Your task to perform on an android device: Go to wifi settings Image 0: 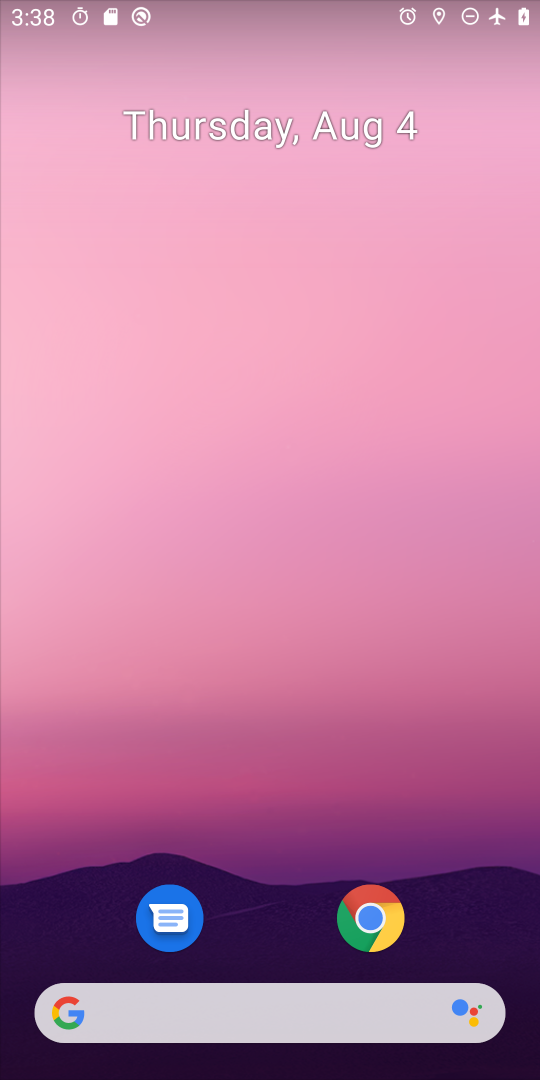
Step 0: drag from (301, 957) to (250, 366)
Your task to perform on an android device: Go to wifi settings Image 1: 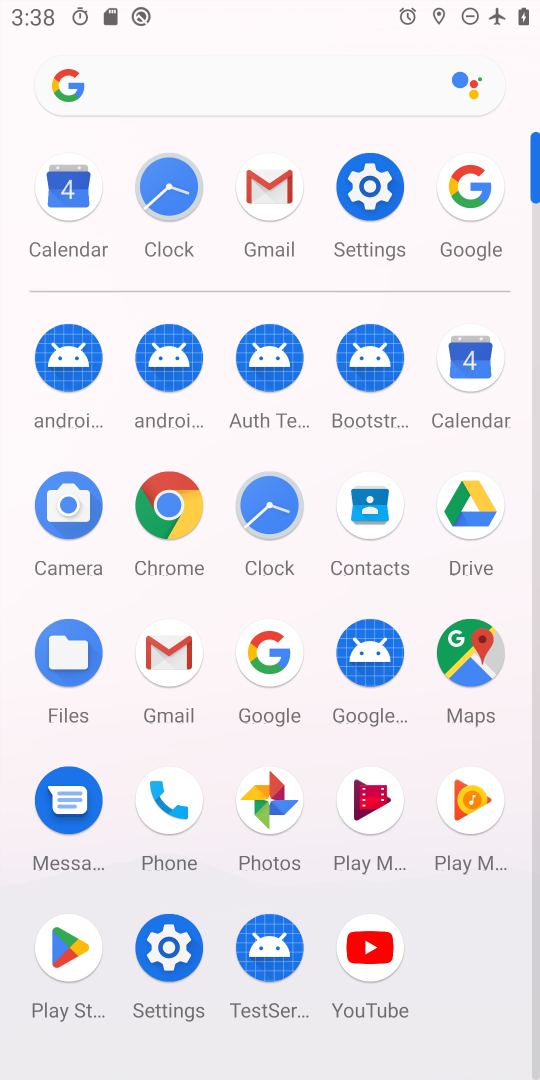
Step 1: click (378, 199)
Your task to perform on an android device: Go to wifi settings Image 2: 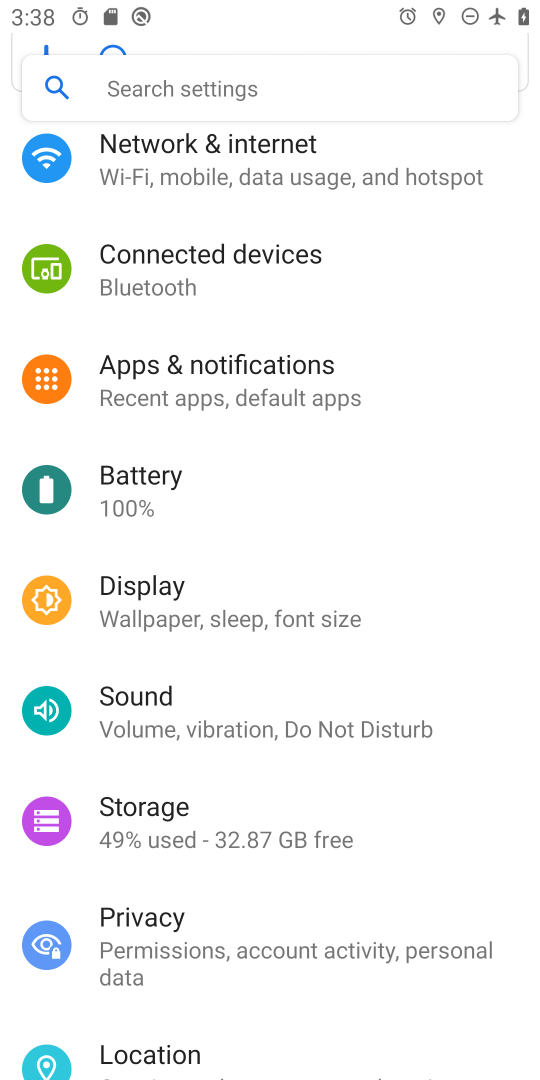
Step 2: click (324, 161)
Your task to perform on an android device: Go to wifi settings Image 3: 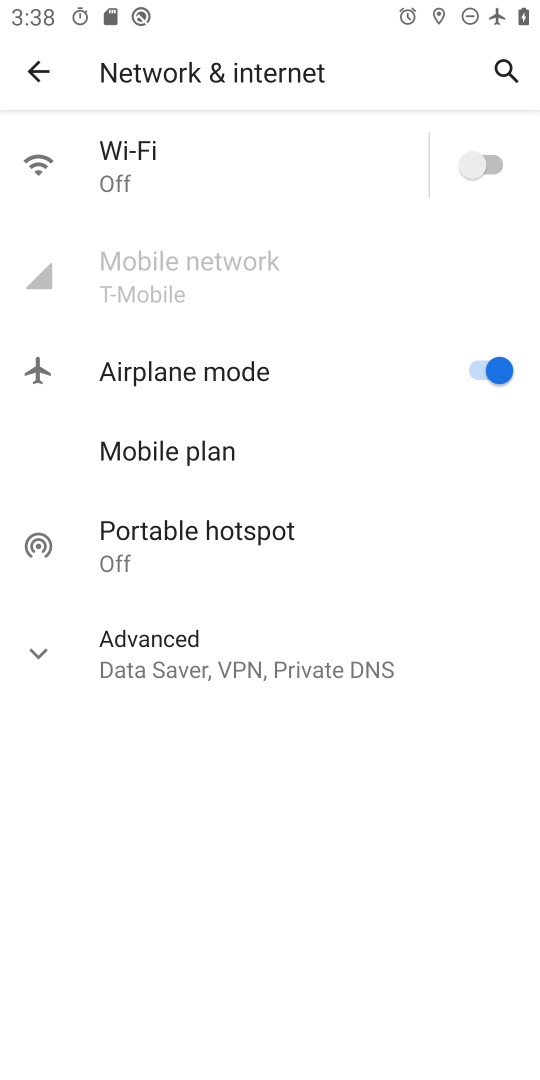
Step 3: click (227, 175)
Your task to perform on an android device: Go to wifi settings Image 4: 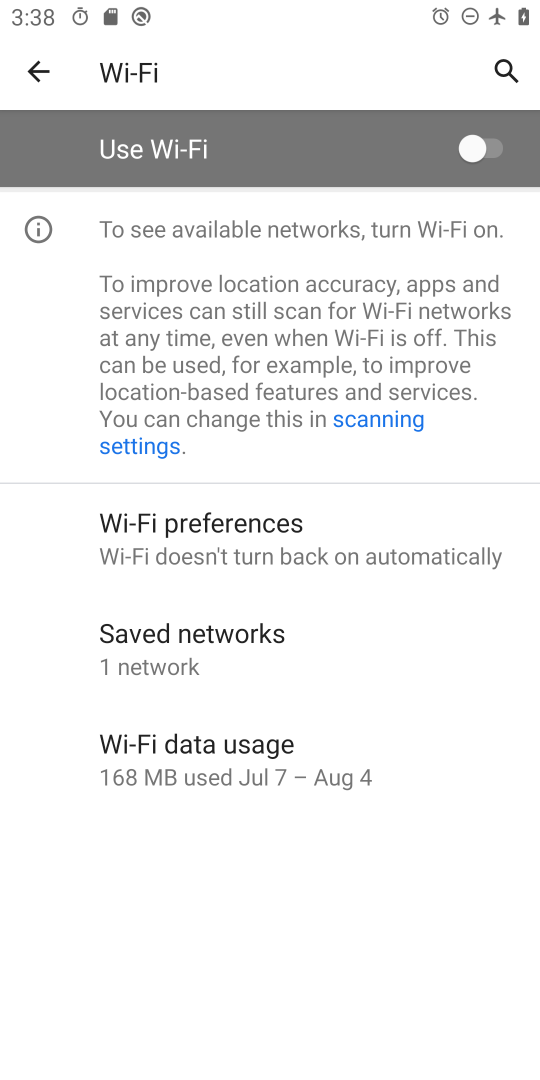
Step 4: task complete